Your task to perform on an android device: toggle data saver in the chrome app Image 0: 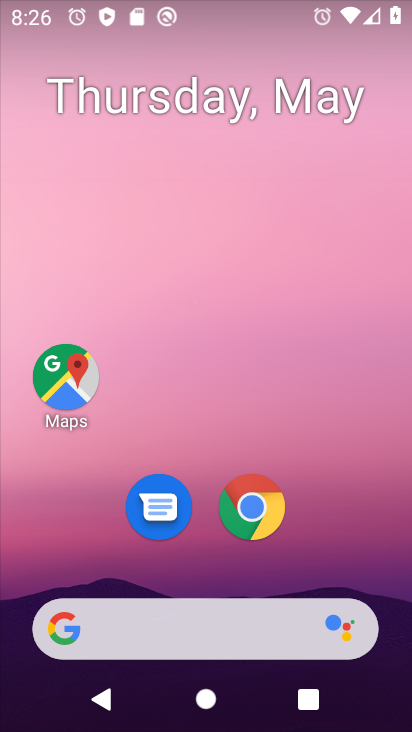
Step 0: click (260, 531)
Your task to perform on an android device: toggle data saver in the chrome app Image 1: 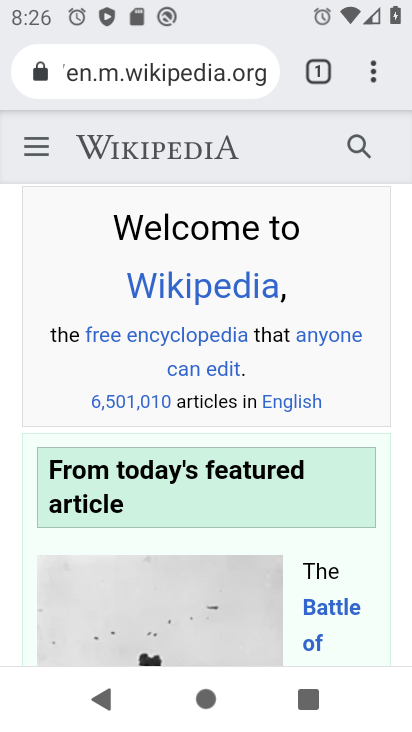
Step 1: click (369, 67)
Your task to perform on an android device: toggle data saver in the chrome app Image 2: 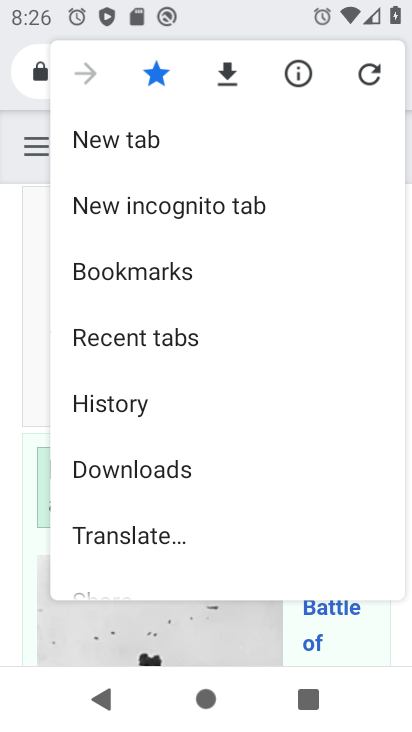
Step 2: drag from (135, 445) to (203, 168)
Your task to perform on an android device: toggle data saver in the chrome app Image 3: 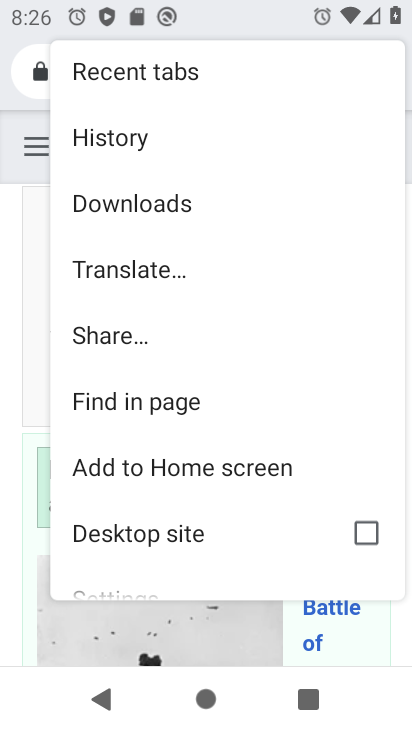
Step 3: drag from (141, 476) to (198, 174)
Your task to perform on an android device: toggle data saver in the chrome app Image 4: 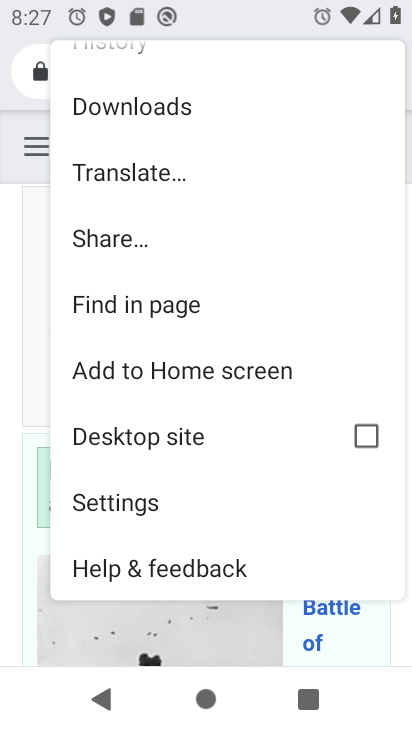
Step 4: click (110, 513)
Your task to perform on an android device: toggle data saver in the chrome app Image 5: 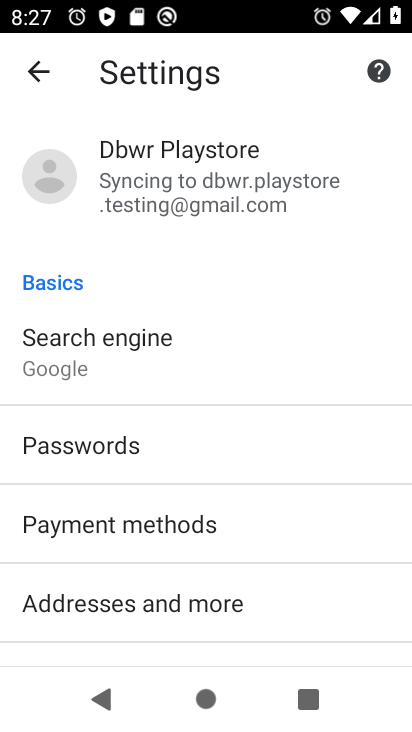
Step 5: drag from (135, 472) to (208, 84)
Your task to perform on an android device: toggle data saver in the chrome app Image 6: 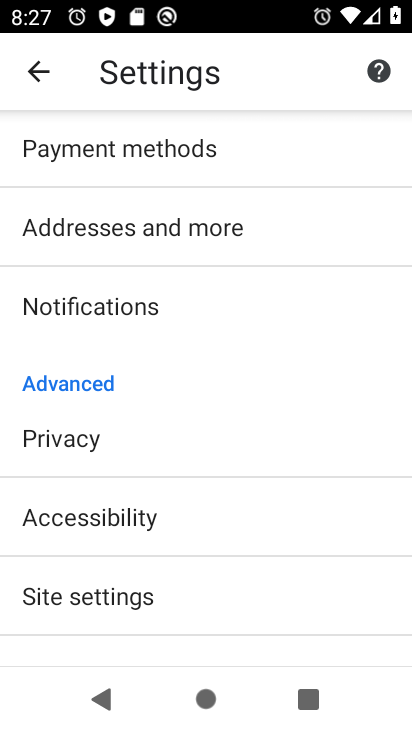
Step 6: drag from (100, 615) to (142, 260)
Your task to perform on an android device: toggle data saver in the chrome app Image 7: 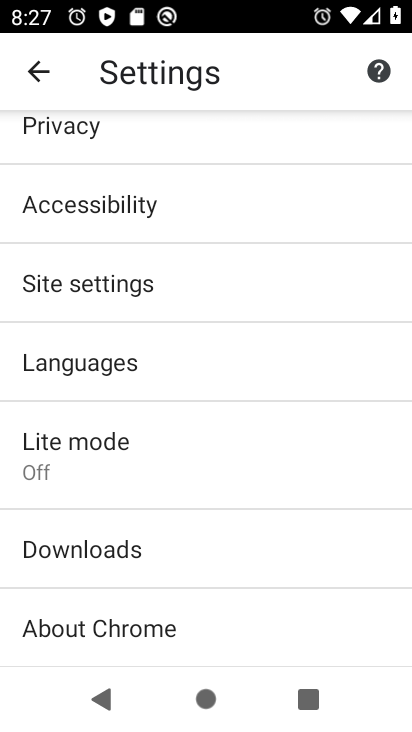
Step 7: click (111, 468)
Your task to perform on an android device: toggle data saver in the chrome app Image 8: 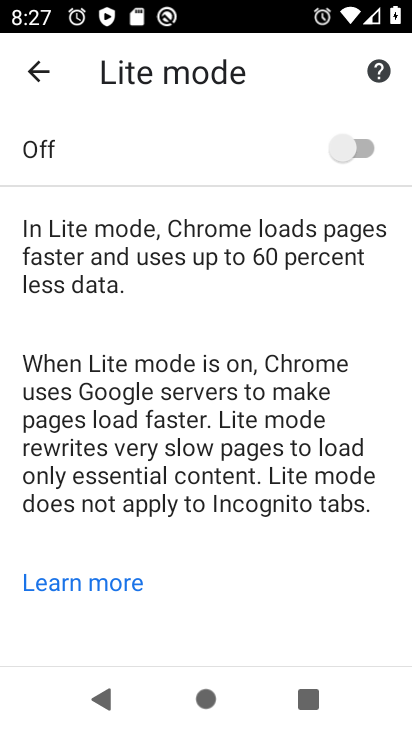
Step 8: click (360, 147)
Your task to perform on an android device: toggle data saver in the chrome app Image 9: 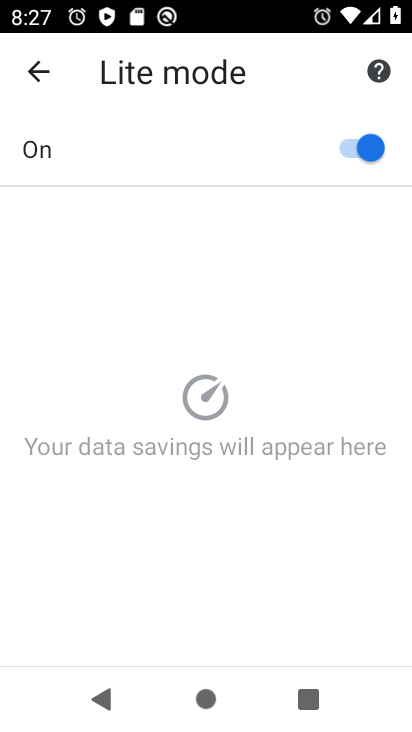
Step 9: task complete